Your task to perform on an android device: read, delete, or share a saved page in the chrome app Image 0: 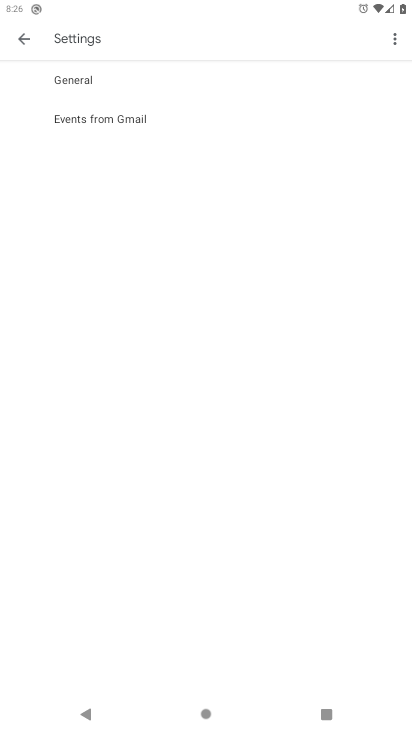
Step 0: press home button
Your task to perform on an android device: read, delete, or share a saved page in the chrome app Image 1: 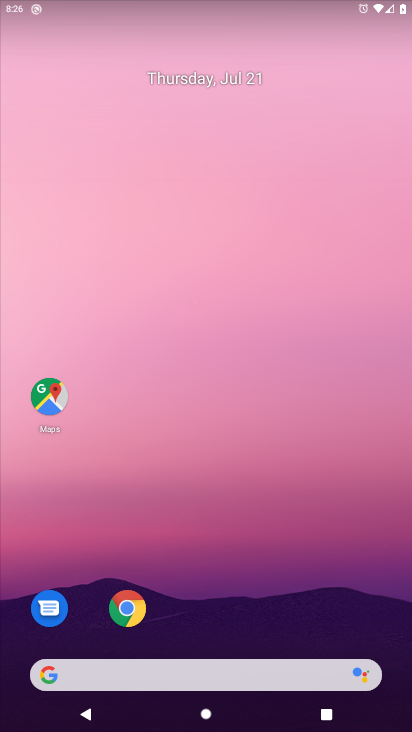
Step 1: click (105, 606)
Your task to perform on an android device: read, delete, or share a saved page in the chrome app Image 2: 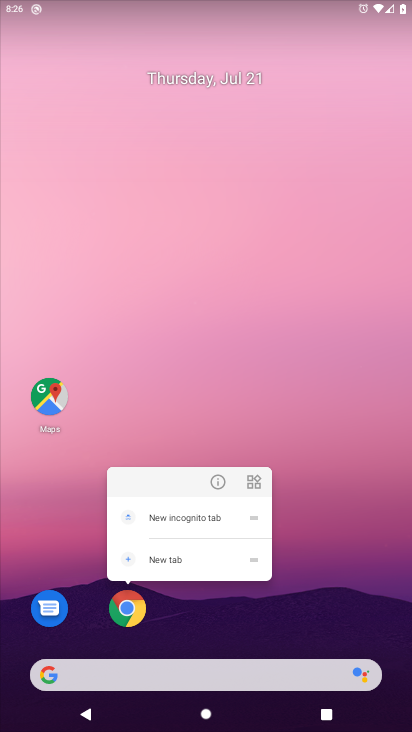
Step 2: click (118, 608)
Your task to perform on an android device: read, delete, or share a saved page in the chrome app Image 3: 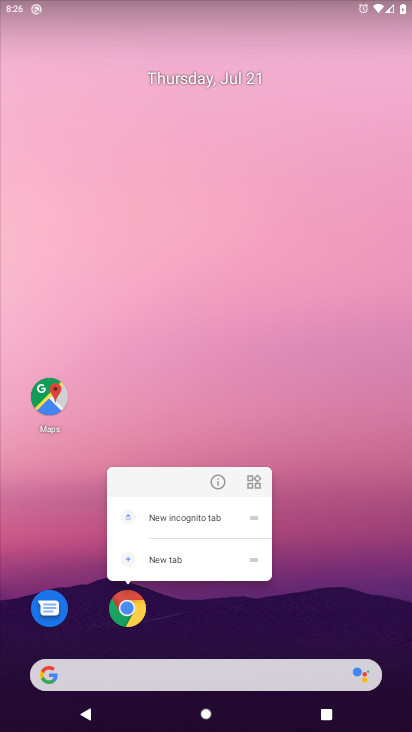
Step 3: click (132, 626)
Your task to perform on an android device: read, delete, or share a saved page in the chrome app Image 4: 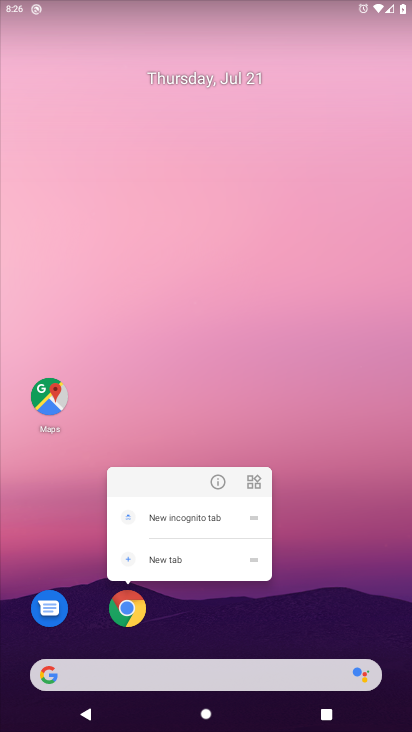
Step 4: click (131, 610)
Your task to perform on an android device: read, delete, or share a saved page in the chrome app Image 5: 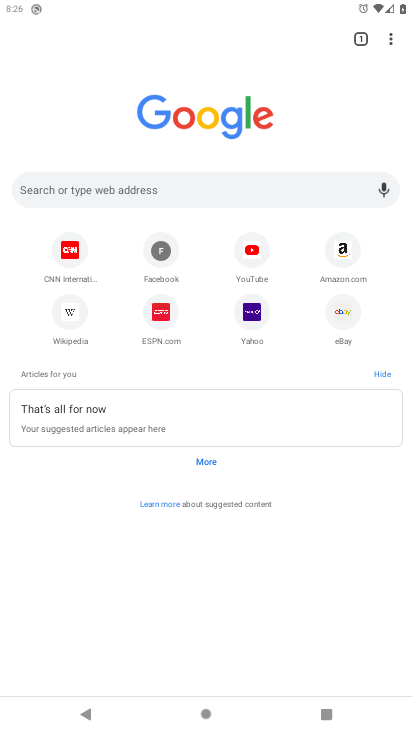
Step 5: click (400, 34)
Your task to perform on an android device: read, delete, or share a saved page in the chrome app Image 6: 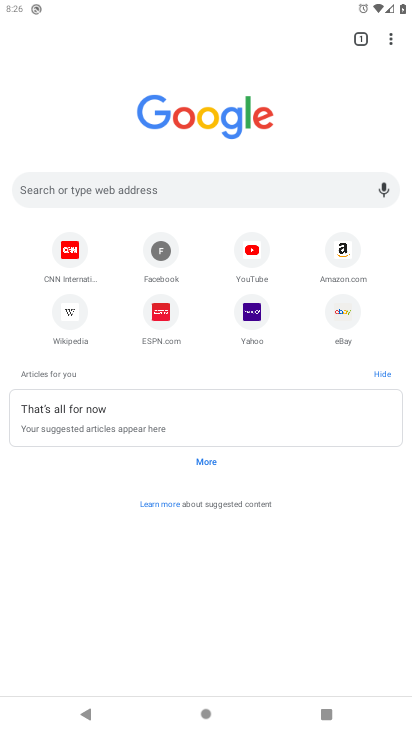
Step 6: click (386, 45)
Your task to perform on an android device: read, delete, or share a saved page in the chrome app Image 7: 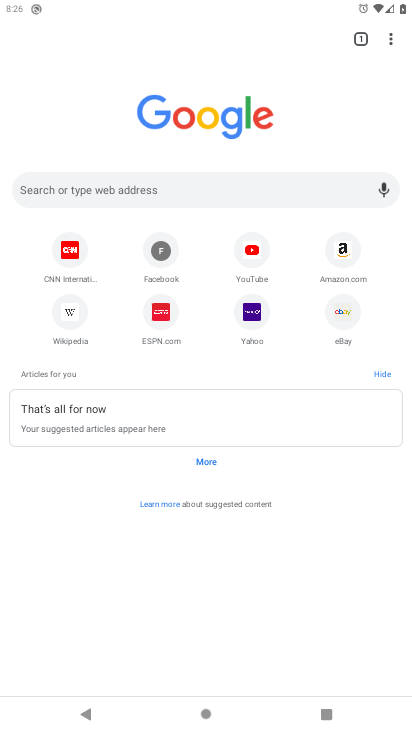
Step 7: click (392, 43)
Your task to perform on an android device: read, delete, or share a saved page in the chrome app Image 8: 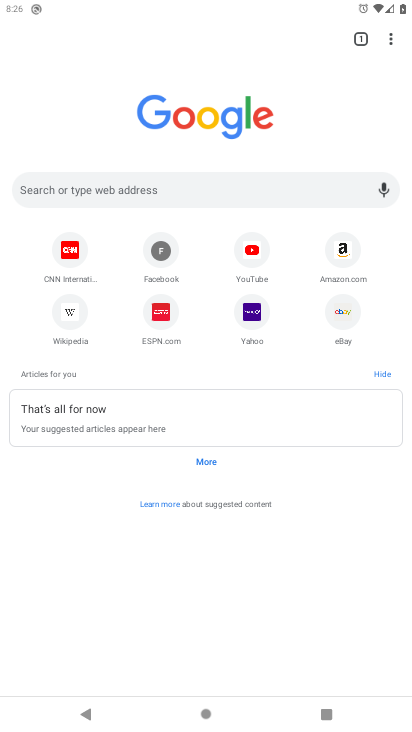
Step 8: click (392, 43)
Your task to perform on an android device: read, delete, or share a saved page in the chrome app Image 9: 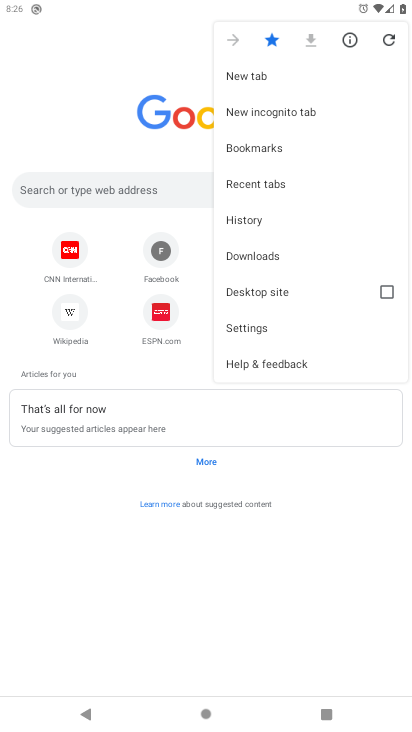
Step 9: click (245, 322)
Your task to perform on an android device: read, delete, or share a saved page in the chrome app Image 10: 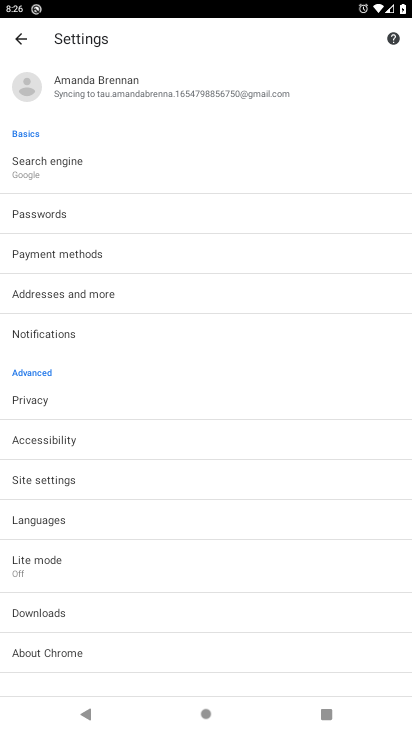
Step 10: task complete